Your task to perform on an android device: Is it going to rain today? Image 0: 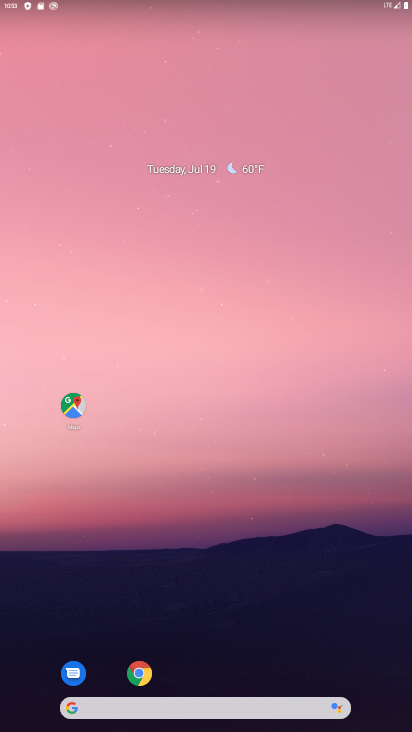
Step 0: drag from (196, 673) to (252, 76)
Your task to perform on an android device: Is it going to rain today? Image 1: 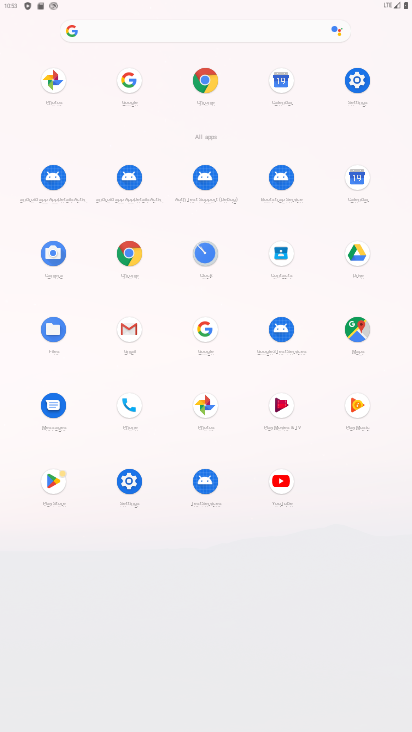
Step 1: click (127, 76)
Your task to perform on an android device: Is it going to rain today? Image 2: 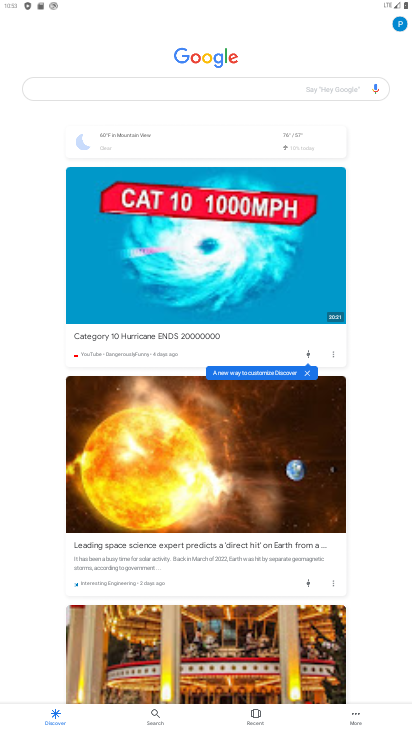
Step 2: click (224, 84)
Your task to perform on an android device: Is it going to rain today? Image 3: 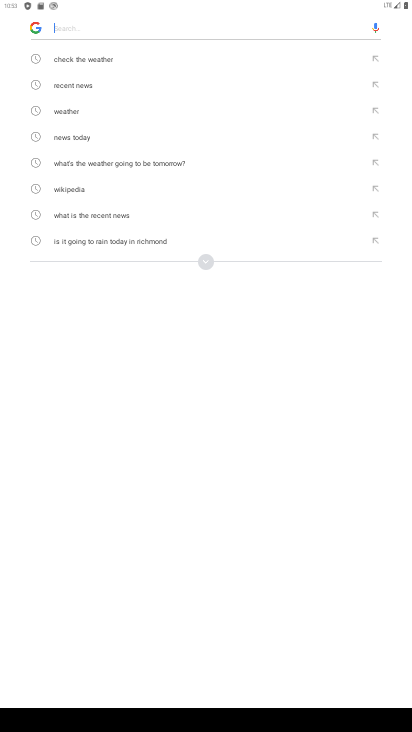
Step 3: type "is it going to rain today"
Your task to perform on an android device: Is it going to rain today? Image 4: 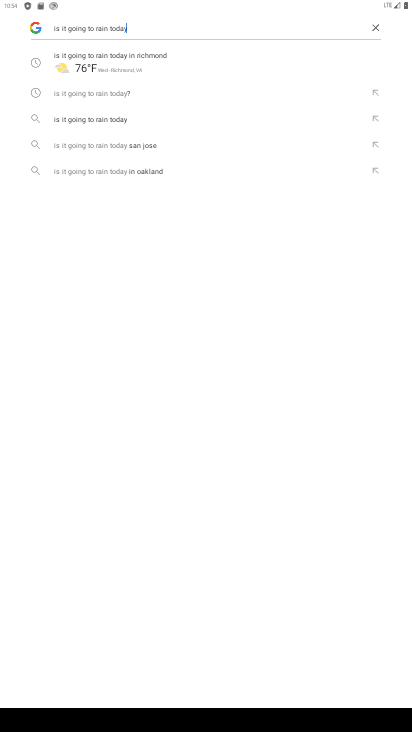
Step 4: click (136, 97)
Your task to perform on an android device: Is it going to rain today? Image 5: 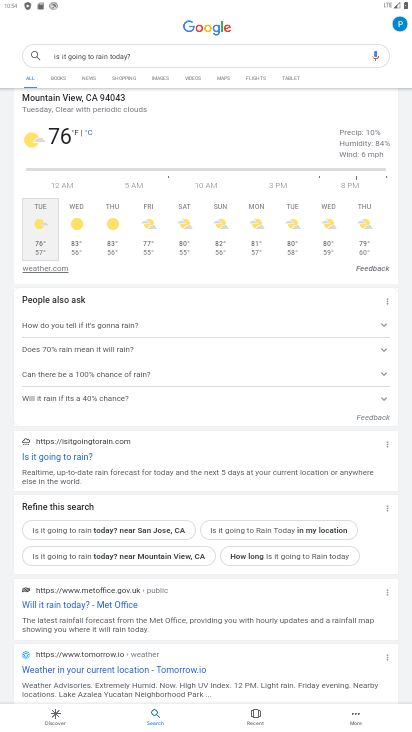
Step 5: task complete